Your task to perform on an android device: manage bookmarks in the chrome app Image 0: 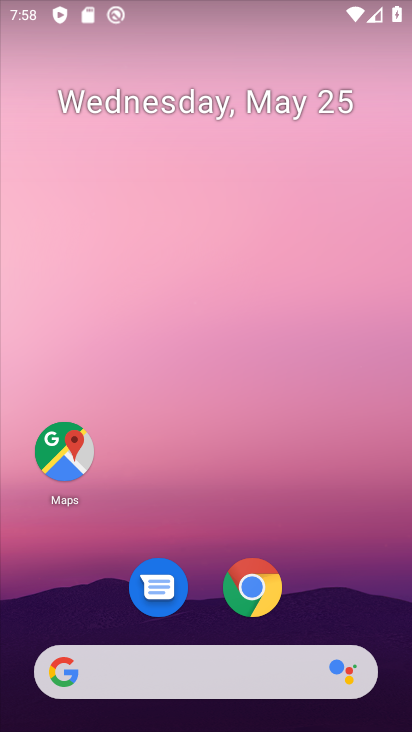
Step 0: click (248, 584)
Your task to perform on an android device: manage bookmarks in the chrome app Image 1: 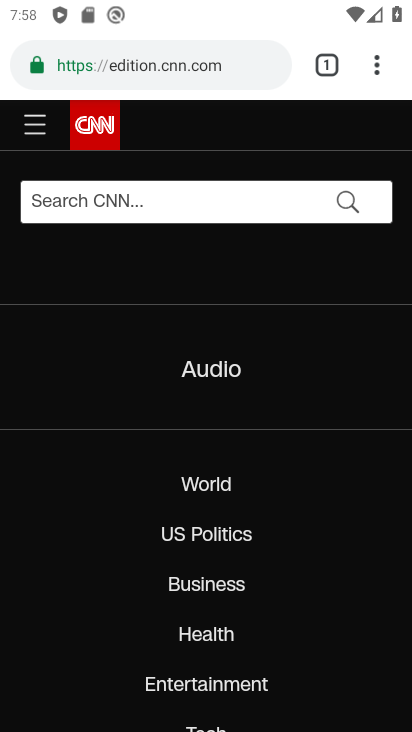
Step 1: click (376, 72)
Your task to perform on an android device: manage bookmarks in the chrome app Image 2: 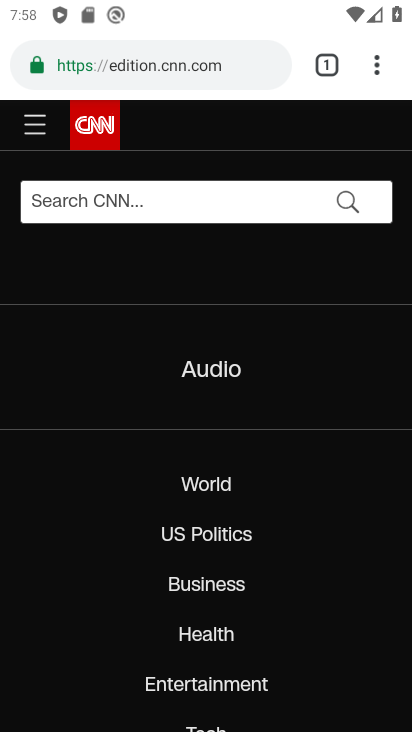
Step 2: drag from (376, 64) to (143, 249)
Your task to perform on an android device: manage bookmarks in the chrome app Image 3: 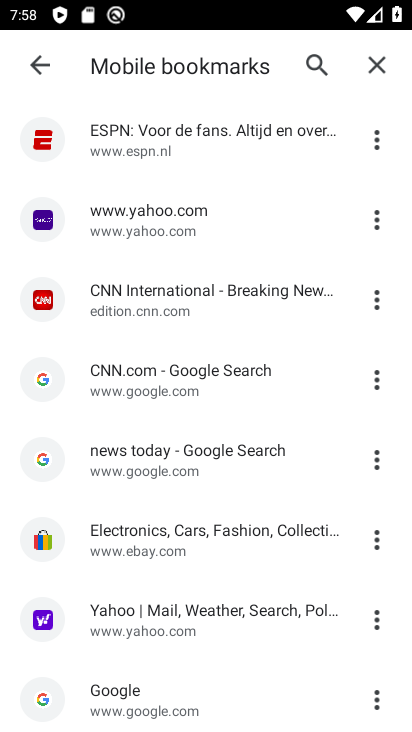
Step 3: click (370, 145)
Your task to perform on an android device: manage bookmarks in the chrome app Image 4: 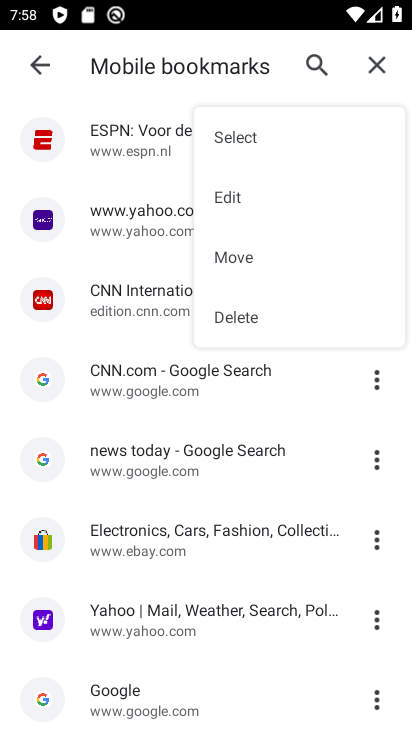
Step 4: click (244, 259)
Your task to perform on an android device: manage bookmarks in the chrome app Image 5: 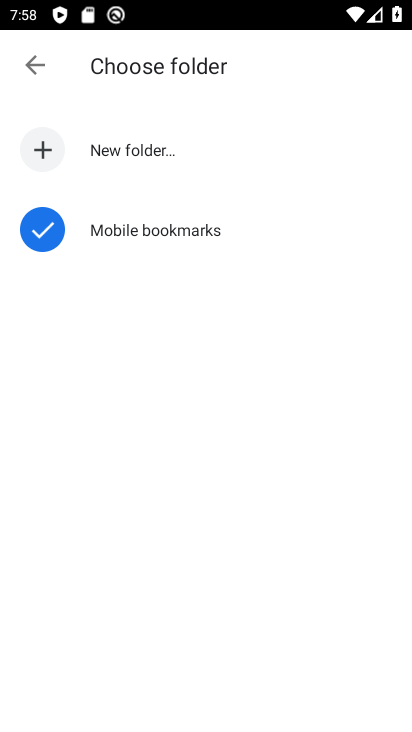
Step 5: click (48, 146)
Your task to perform on an android device: manage bookmarks in the chrome app Image 6: 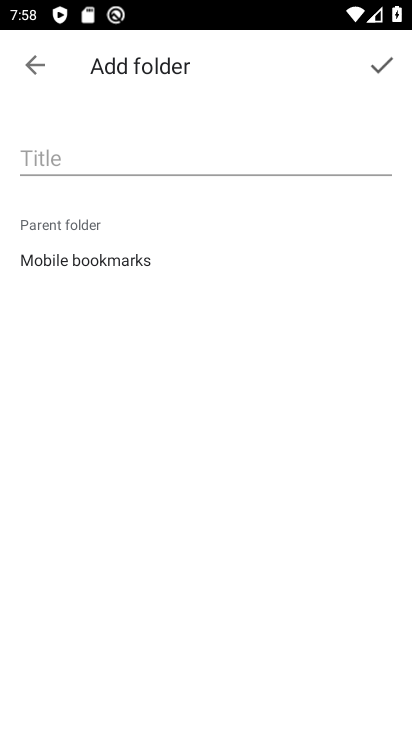
Step 6: click (196, 147)
Your task to perform on an android device: manage bookmarks in the chrome app Image 7: 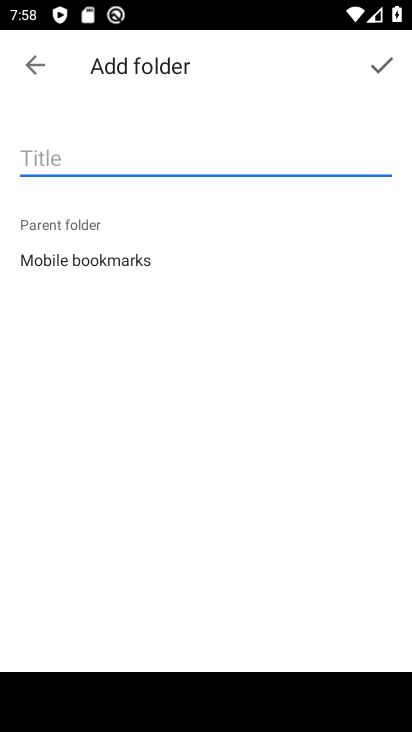
Step 7: type "vvv"
Your task to perform on an android device: manage bookmarks in the chrome app Image 8: 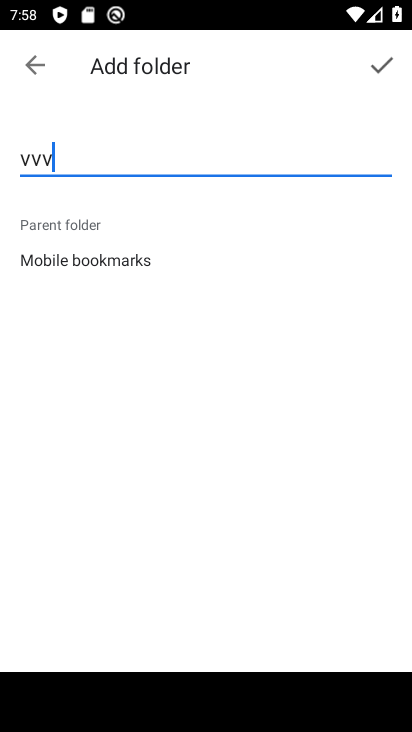
Step 8: click (376, 65)
Your task to perform on an android device: manage bookmarks in the chrome app Image 9: 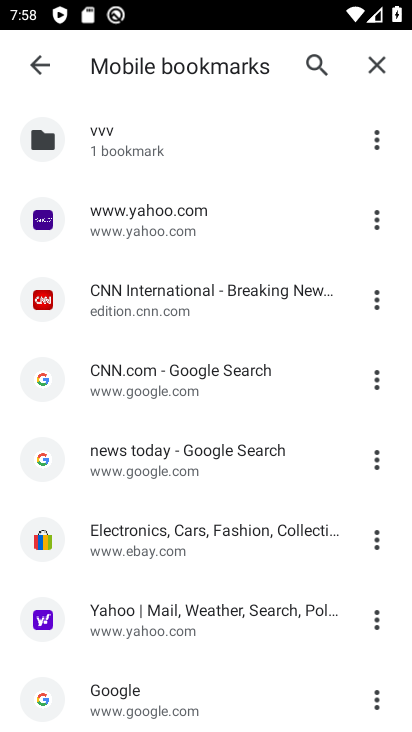
Step 9: task complete